Your task to perform on an android device: Go to Google maps Image 0: 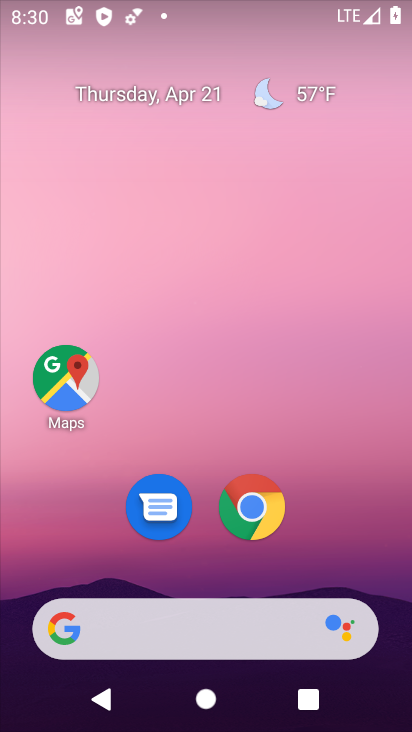
Step 0: click (68, 389)
Your task to perform on an android device: Go to Google maps Image 1: 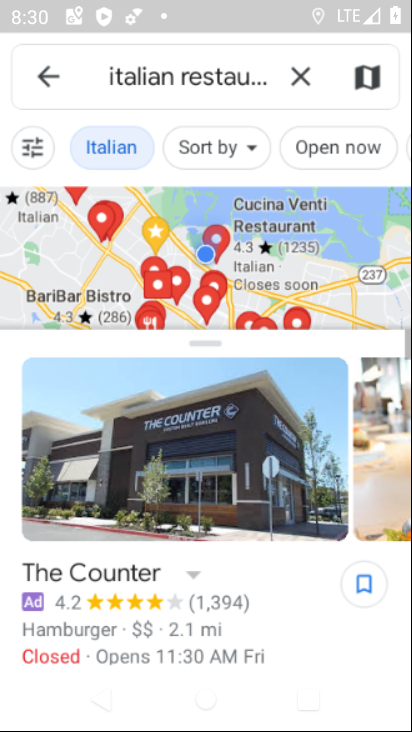
Step 1: task complete